Your task to perform on an android device: Search for pizza restaurants on Maps Image 0: 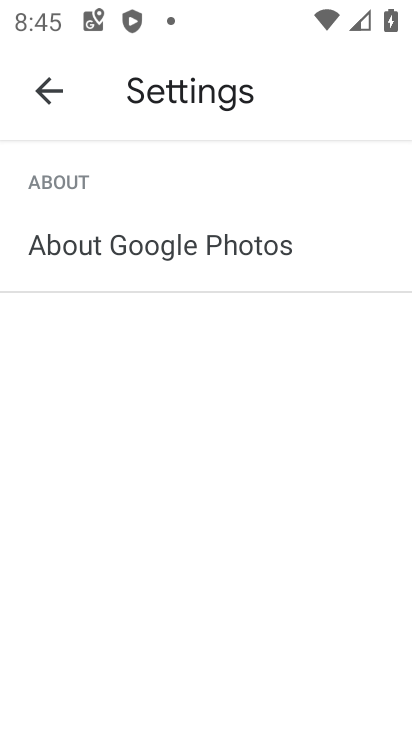
Step 0: press home button
Your task to perform on an android device: Search for pizza restaurants on Maps Image 1: 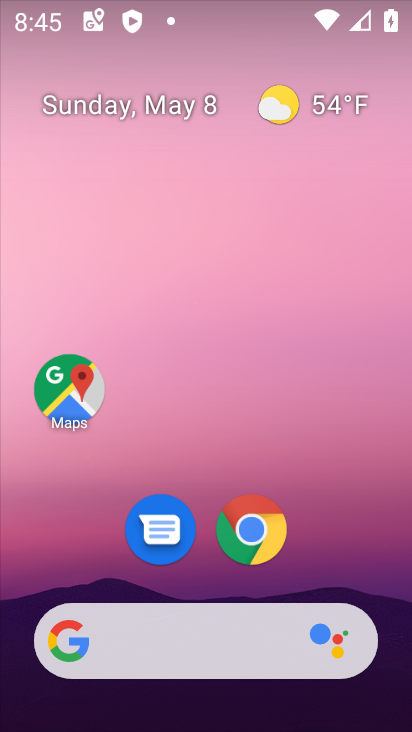
Step 1: drag from (337, 576) to (348, 190)
Your task to perform on an android device: Search for pizza restaurants on Maps Image 2: 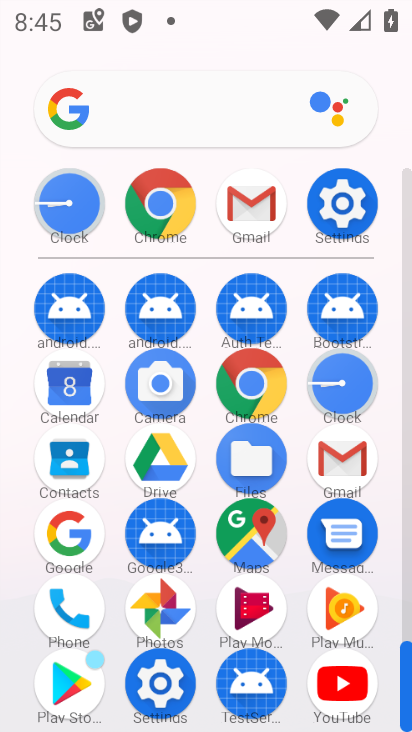
Step 2: click (237, 535)
Your task to perform on an android device: Search for pizza restaurants on Maps Image 3: 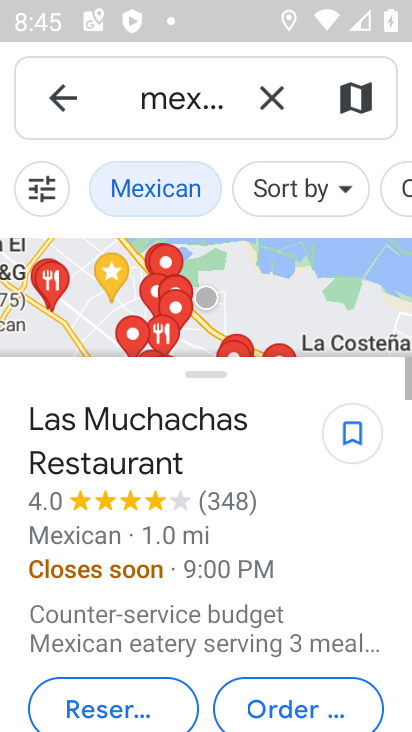
Step 3: click (276, 95)
Your task to perform on an android device: Search for pizza restaurants on Maps Image 4: 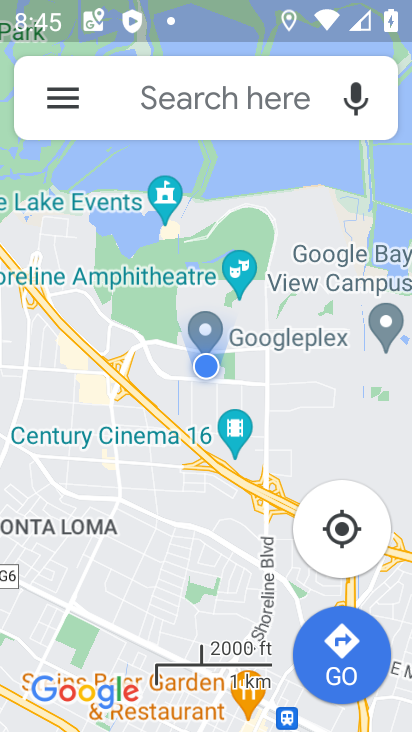
Step 4: click (215, 105)
Your task to perform on an android device: Search for pizza restaurants on Maps Image 5: 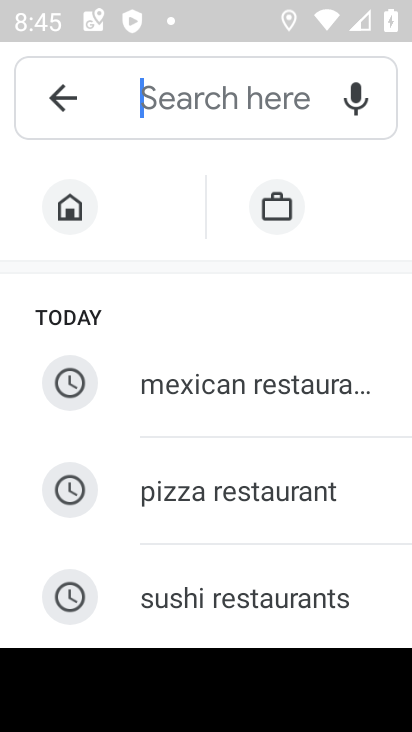
Step 5: click (257, 495)
Your task to perform on an android device: Search for pizza restaurants on Maps Image 6: 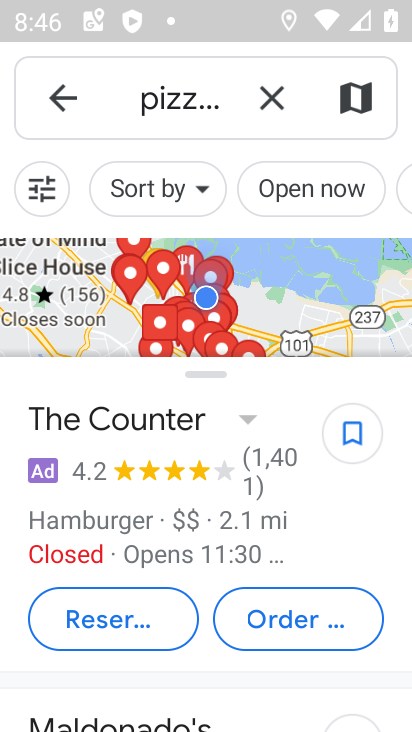
Step 6: task complete